Your task to perform on an android device: Open privacy settings Image 0: 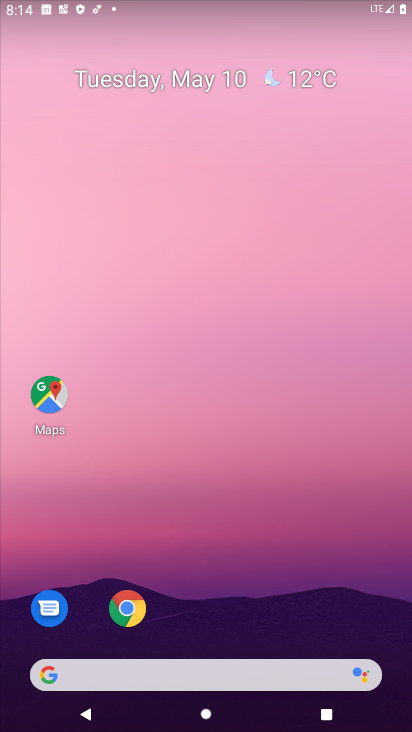
Step 0: press home button
Your task to perform on an android device: Open privacy settings Image 1: 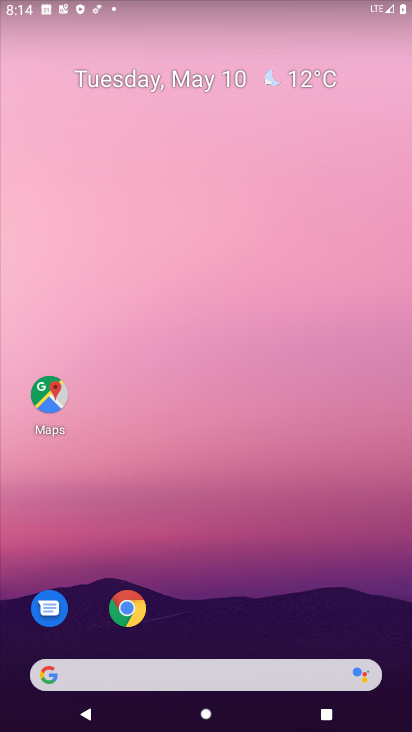
Step 1: drag from (138, 677) to (312, 143)
Your task to perform on an android device: Open privacy settings Image 2: 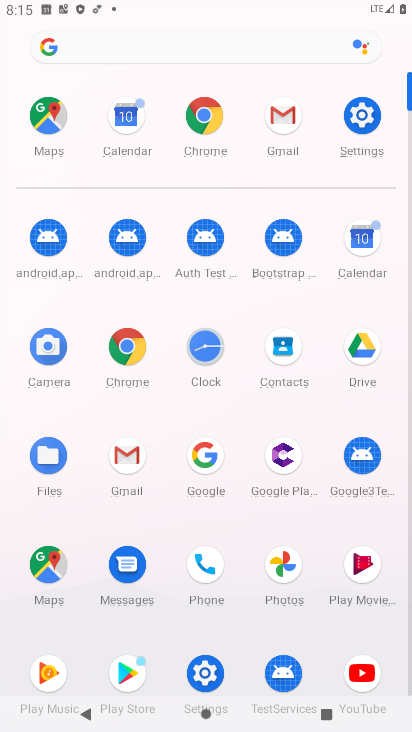
Step 2: click (360, 109)
Your task to perform on an android device: Open privacy settings Image 3: 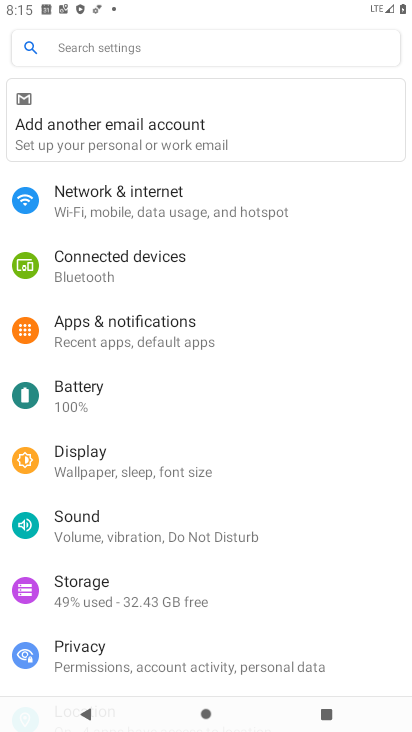
Step 3: drag from (140, 500) to (299, 269)
Your task to perform on an android device: Open privacy settings Image 4: 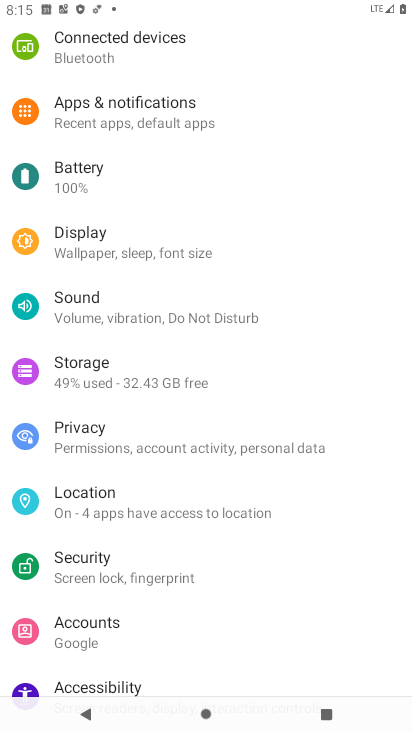
Step 4: click (86, 427)
Your task to perform on an android device: Open privacy settings Image 5: 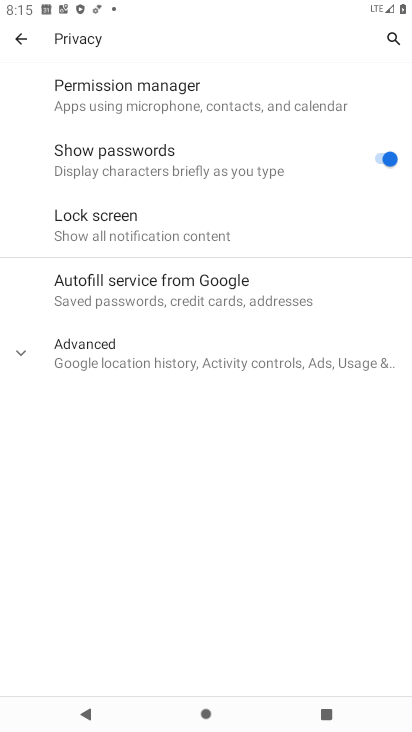
Step 5: task complete